Your task to perform on an android device: toggle priority inbox in the gmail app Image 0: 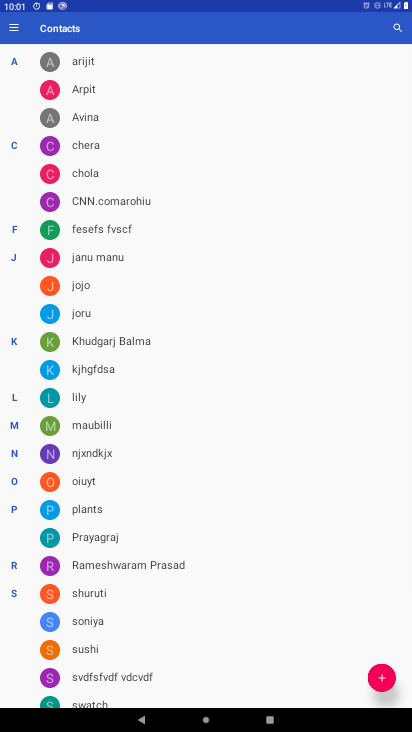
Step 0: press home button
Your task to perform on an android device: toggle priority inbox in the gmail app Image 1: 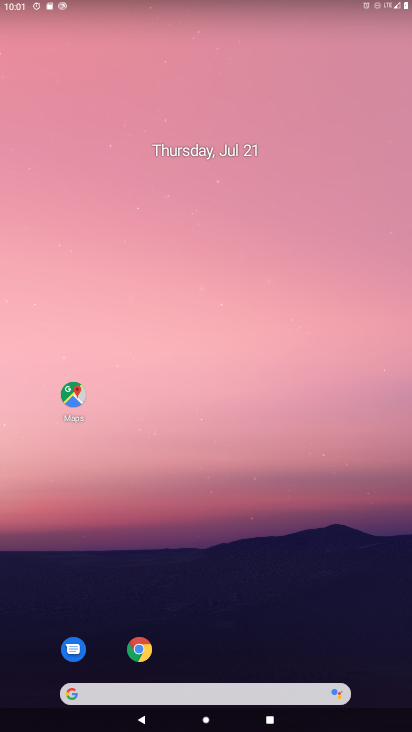
Step 1: drag from (382, 656) to (219, 44)
Your task to perform on an android device: toggle priority inbox in the gmail app Image 2: 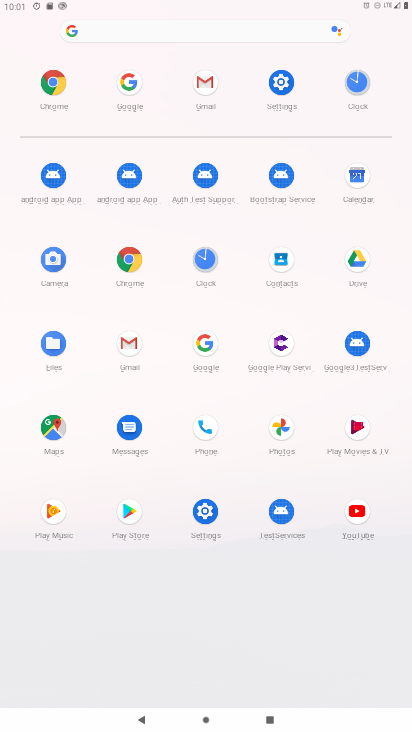
Step 2: click (122, 352)
Your task to perform on an android device: toggle priority inbox in the gmail app Image 3: 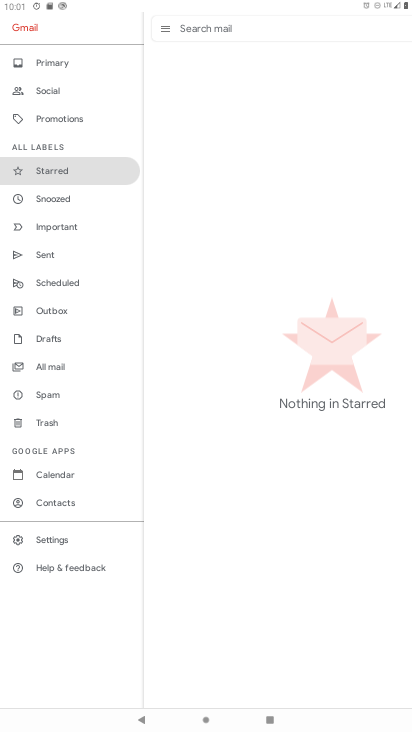
Step 3: click (49, 549)
Your task to perform on an android device: toggle priority inbox in the gmail app Image 4: 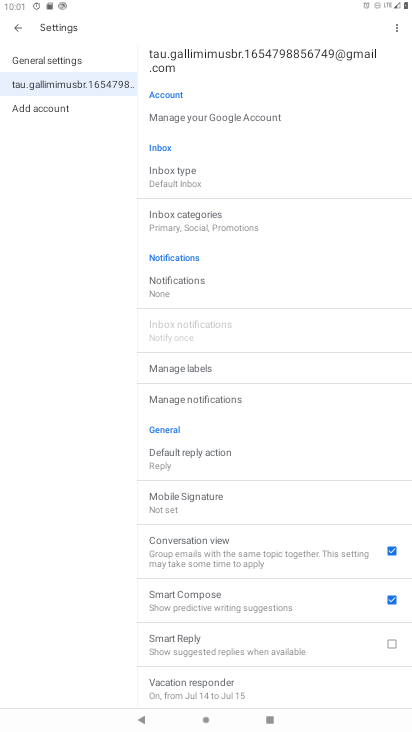
Step 4: click (183, 184)
Your task to perform on an android device: toggle priority inbox in the gmail app Image 5: 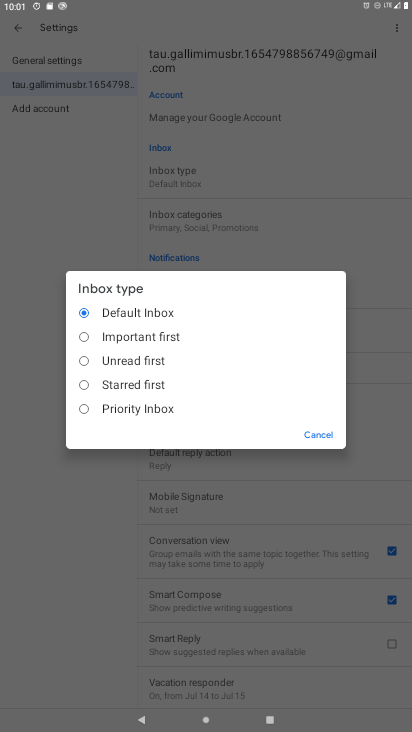
Step 5: task complete